Your task to perform on an android device: Open notification settings Image 0: 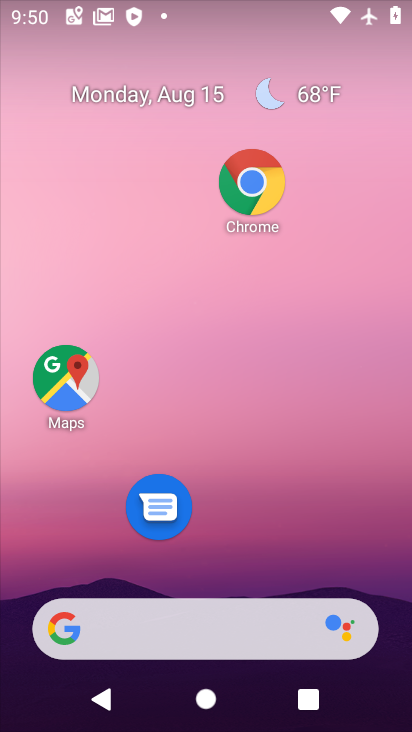
Step 0: drag from (301, 590) to (321, 20)
Your task to perform on an android device: Open notification settings Image 1: 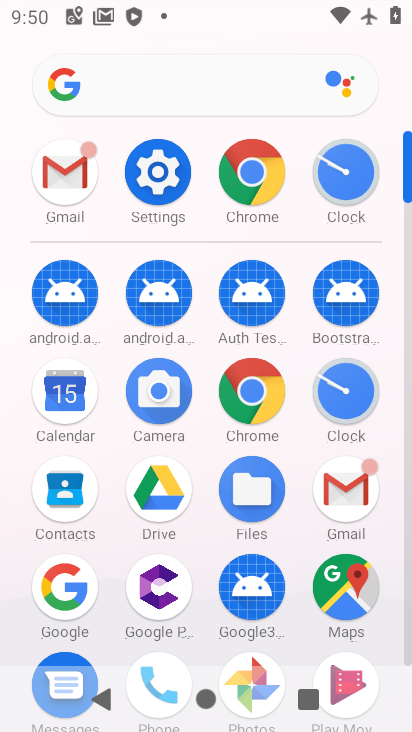
Step 1: click (154, 184)
Your task to perform on an android device: Open notification settings Image 2: 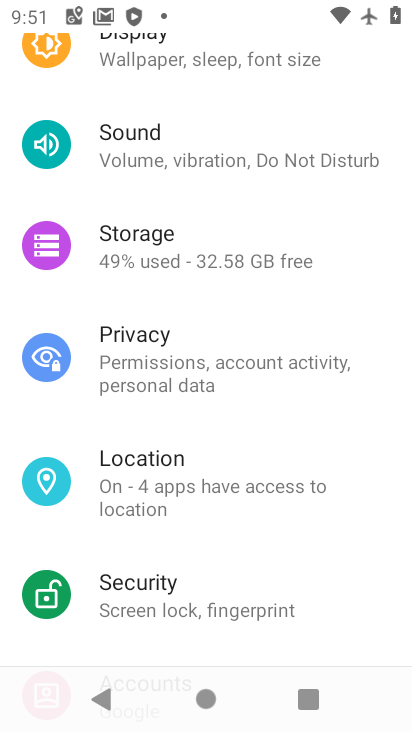
Step 2: drag from (188, 256) to (249, 596)
Your task to perform on an android device: Open notification settings Image 3: 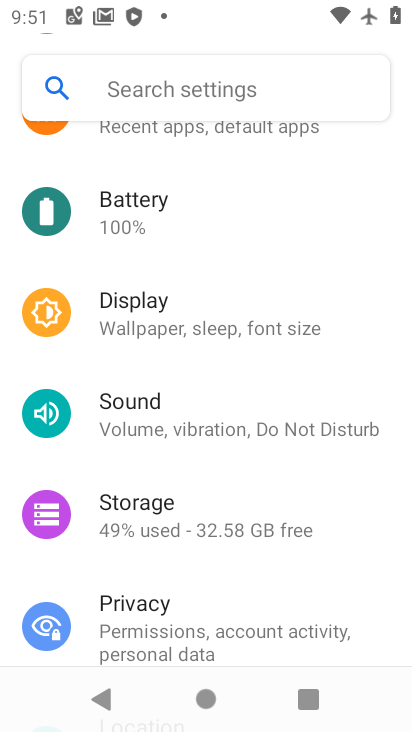
Step 3: drag from (238, 280) to (257, 650)
Your task to perform on an android device: Open notification settings Image 4: 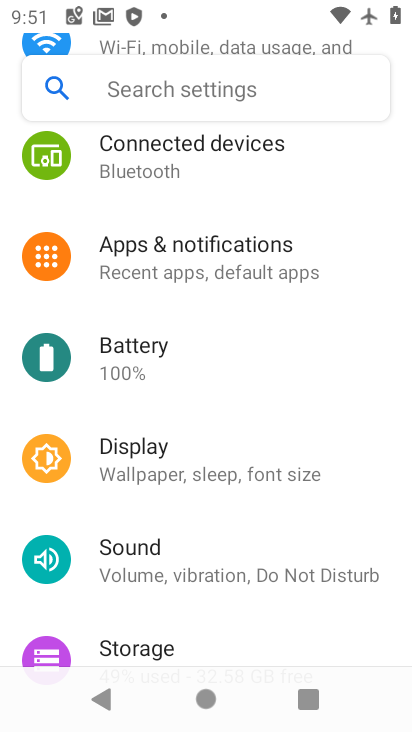
Step 4: click (237, 289)
Your task to perform on an android device: Open notification settings Image 5: 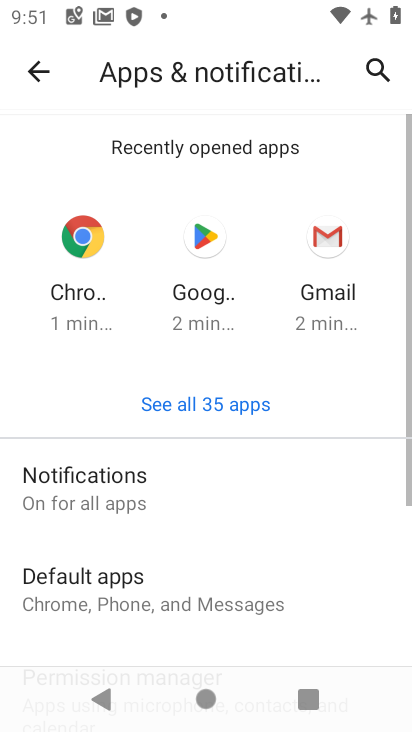
Step 5: task complete